Your task to perform on an android device: What's the weather? Image 0: 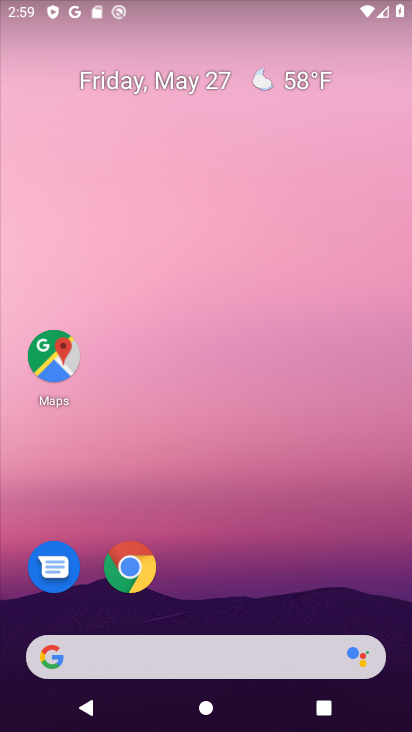
Step 0: press home button
Your task to perform on an android device: What's the weather? Image 1: 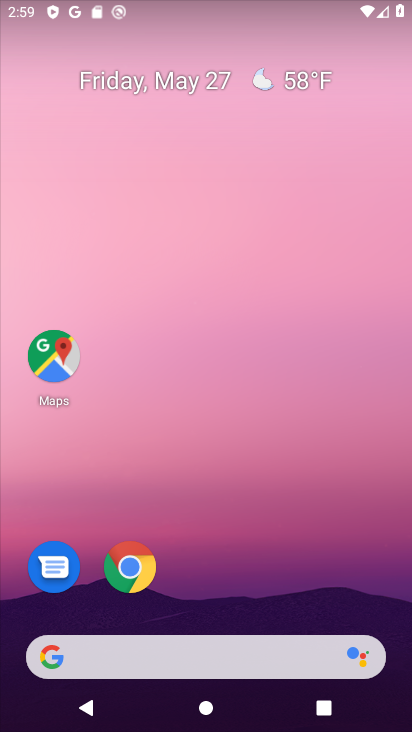
Step 1: click (290, 79)
Your task to perform on an android device: What's the weather? Image 2: 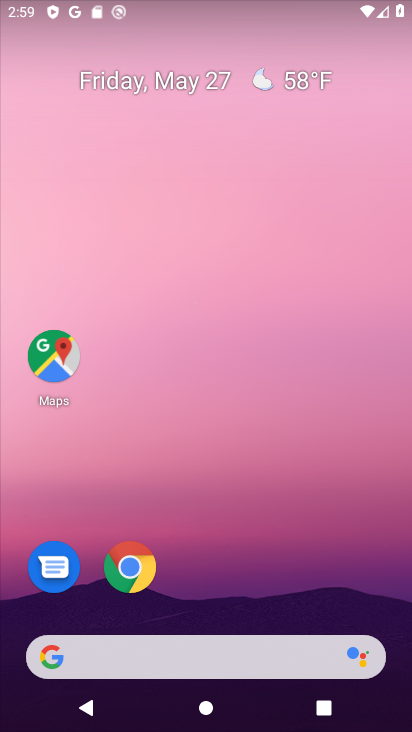
Step 2: click (290, 80)
Your task to perform on an android device: What's the weather? Image 3: 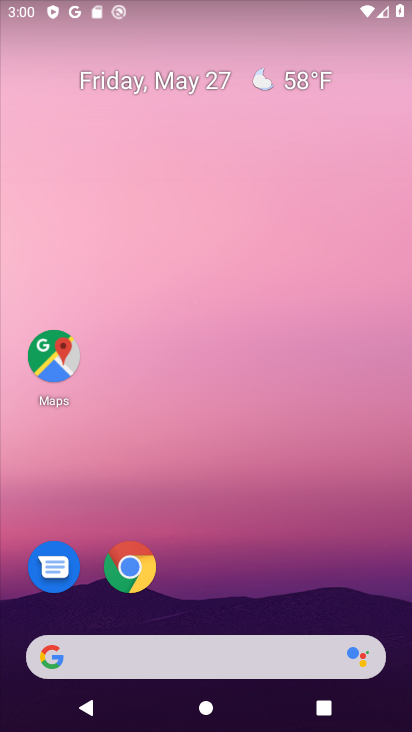
Step 3: drag from (12, 248) to (404, 219)
Your task to perform on an android device: What's the weather? Image 4: 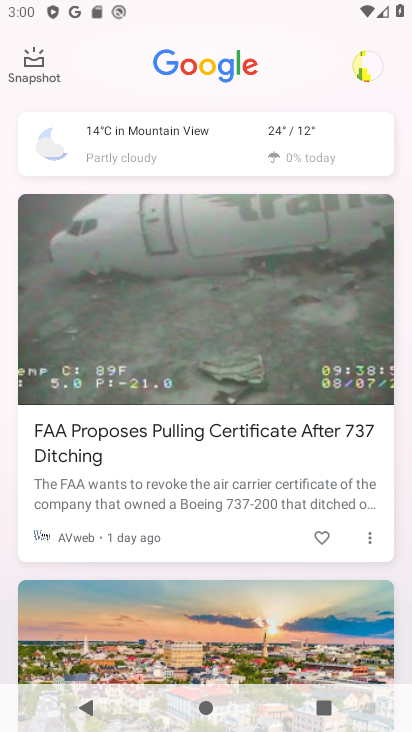
Step 4: click (283, 128)
Your task to perform on an android device: What's the weather? Image 5: 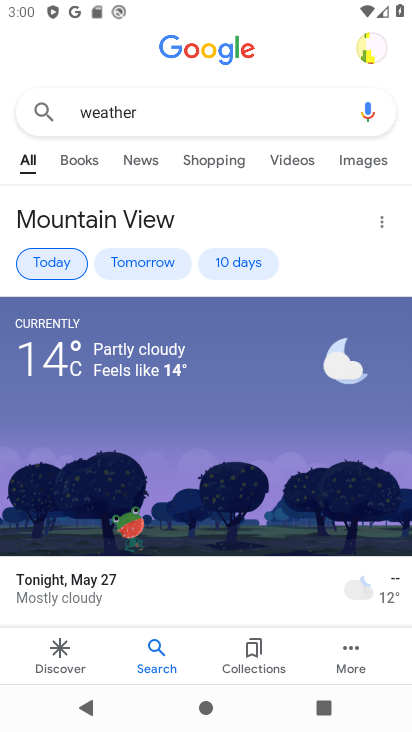
Step 5: task complete